Your task to perform on an android device: turn on the 12-hour format for clock Image 0: 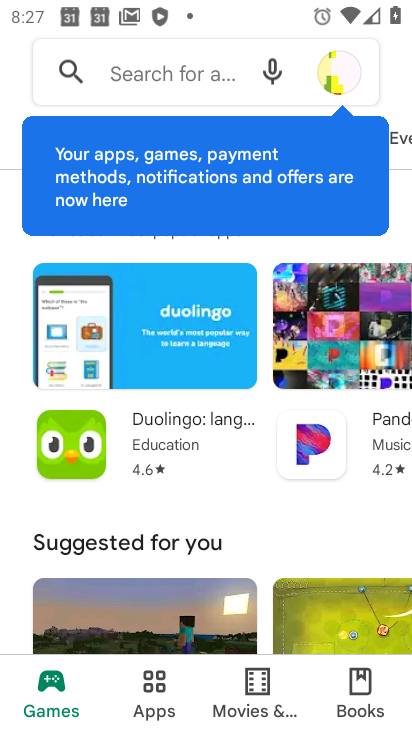
Step 0: drag from (368, 693) to (263, 309)
Your task to perform on an android device: turn on the 12-hour format for clock Image 1: 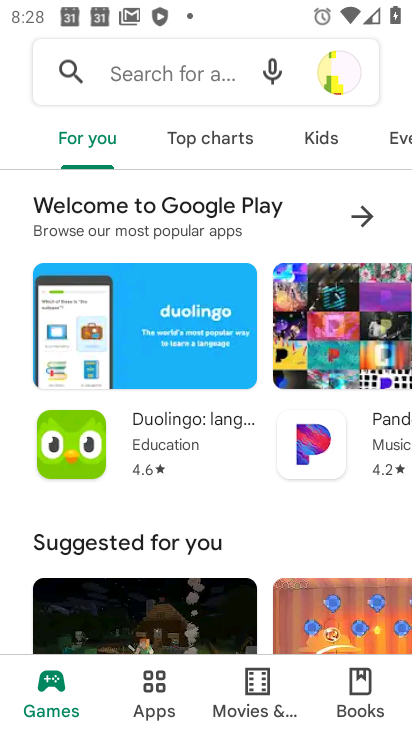
Step 1: press home button
Your task to perform on an android device: turn on the 12-hour format for clock Image 2: 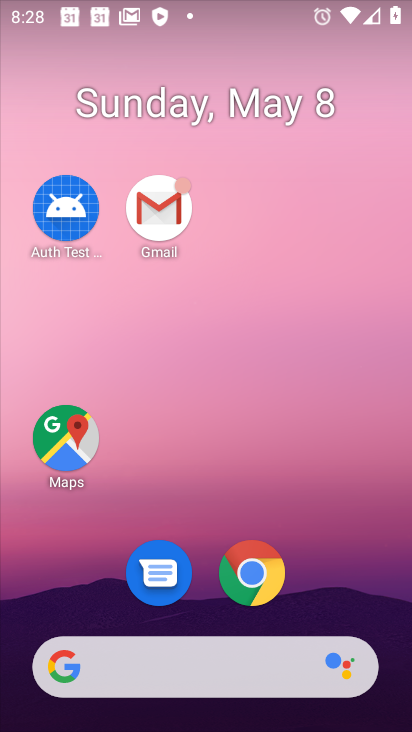
Step 2: drag from (346, 596) to (118, 92)
Your task to perform on an android device: turn on the 12-hour format for clock Image 3: 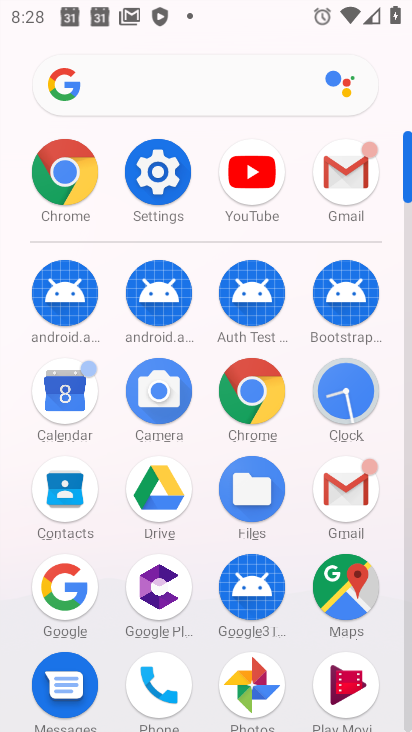
Step 3: click (337, 392)
Your task to perform on an android device: turn on the 12-hour format for clock Image 4: 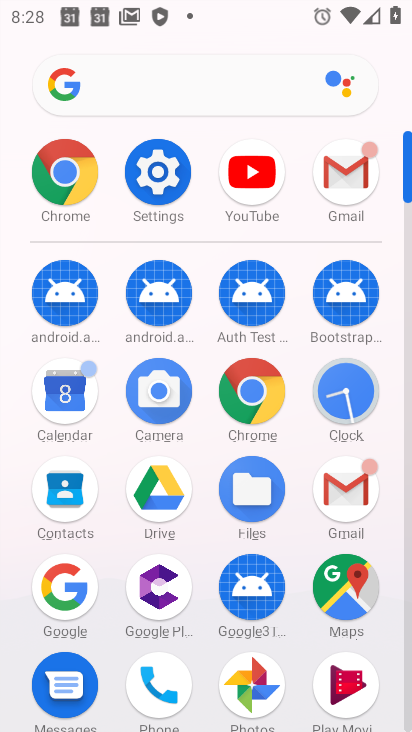
Step 4: click (338, 393)
Your task to perform on an android device: turn on the 12-hour format for clock Image 5: 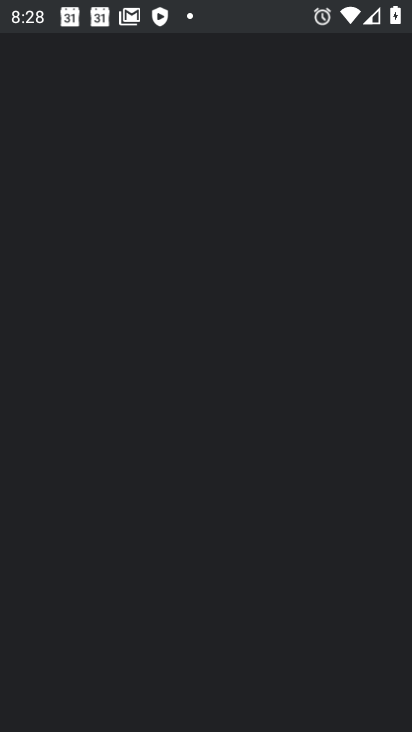
Step 5: click (338, 393)
Your task to perform on an android device: turn on the 12-hour format for clock Image 6: 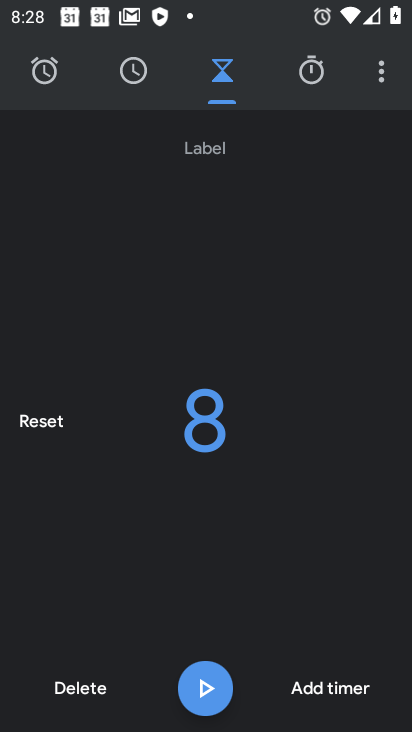
Step 6: click (386, 76)
Your task to perform on an android device: turn on the 12-hour format for clock Image 7: 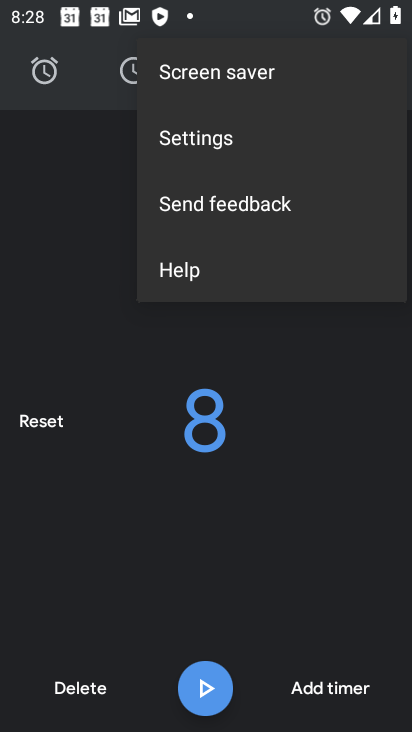
Step 7: click (202, 135)
Your task to perform on an android device: turn on the 12-hour format for clock Image 8: 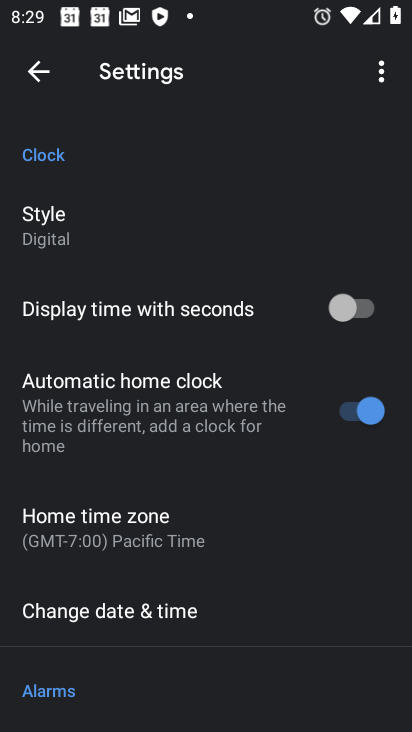
Step 8: click (158, 614)
Your task to perform on an android device: turn on the 12-hour format for clock Image 9: 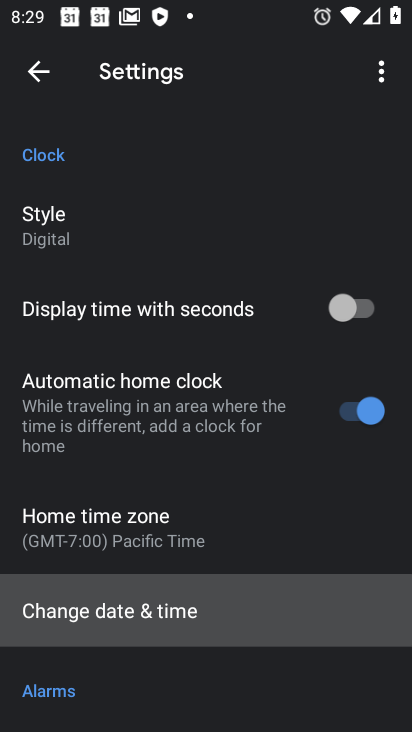
Step 9: click (158, 614)
Your task to perform on an android device: turn on the 12-hour format for clock Image 10: 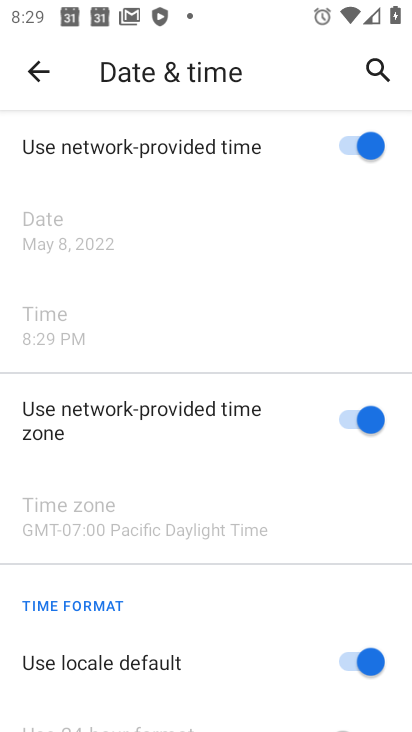
Step 10: task complete